Your task to perform on an android device: change the clock display to digital Image 0: 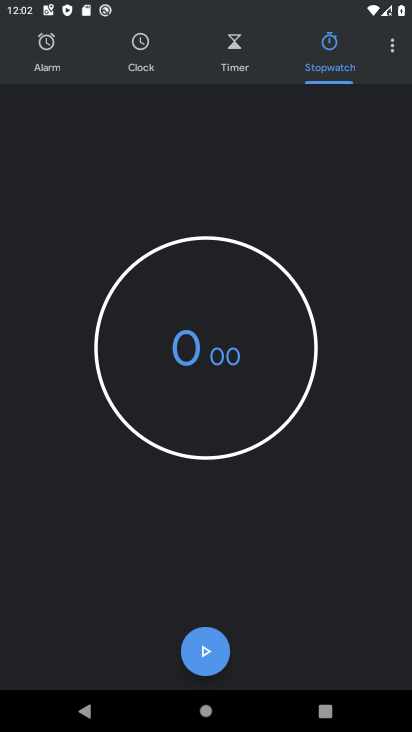
Step 0: press home button
Your task to perform on an android device: change the clock display to digital Image 1: 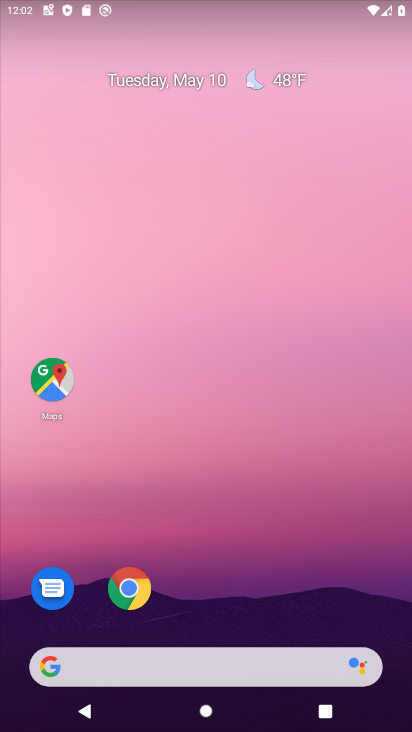
Step 1: drag from (258, 48) to (408, 0)
Your task to perform on an android device: change the clock display to digital Image 2: 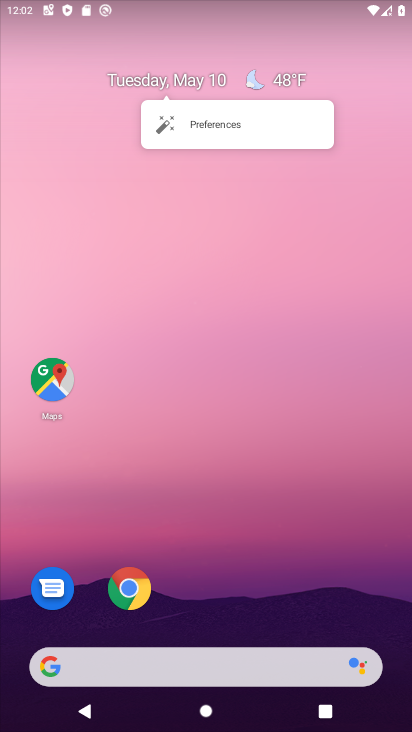
Step 2: click (278, 486)
Your task to perform on an android device: change the clock display to digital Image 3: 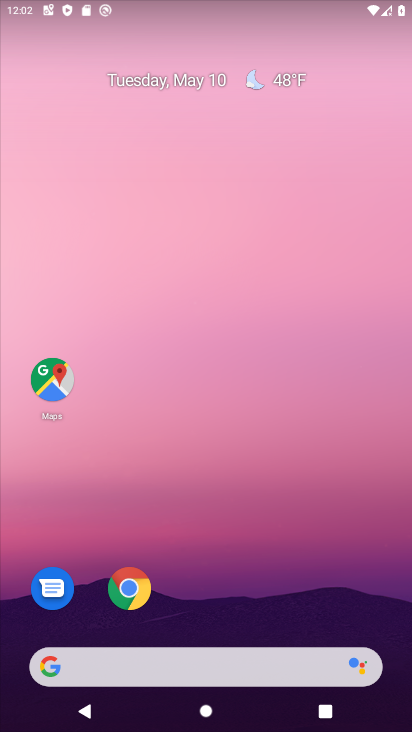
Step 3: drag from (278, 486) to (334, 45)
Your task to perform on an android device: change the clock display to digital Image 4: 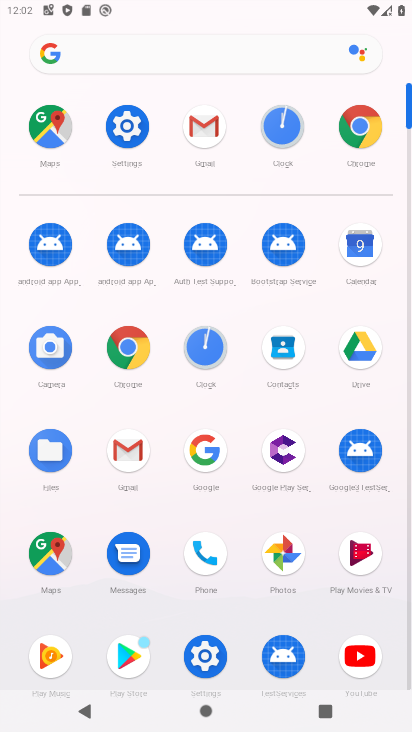
Step 4: click (207, 337)
Your task to perform on an android device: change the clock display to digital Image 5: 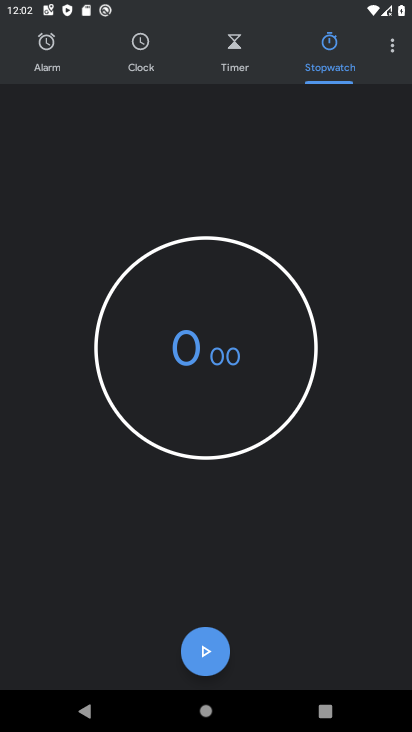
Step 5: click (379, 45)
Your task to perform on an android device: change the clock display to digital Image 6: 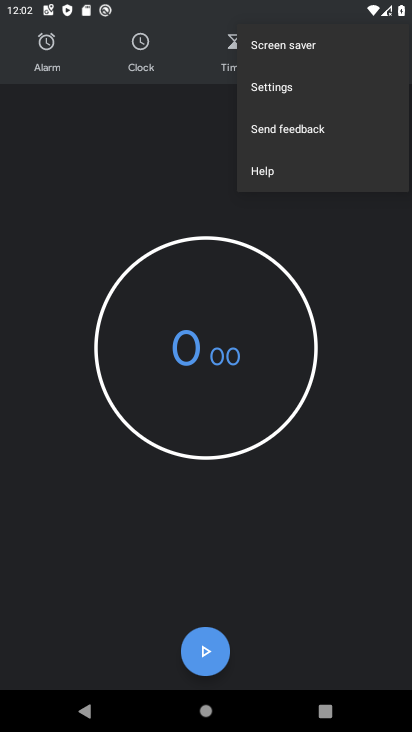
Step 6: click (337, 82)
Your task to perform on an android device: change the clock display to digital Image 7: 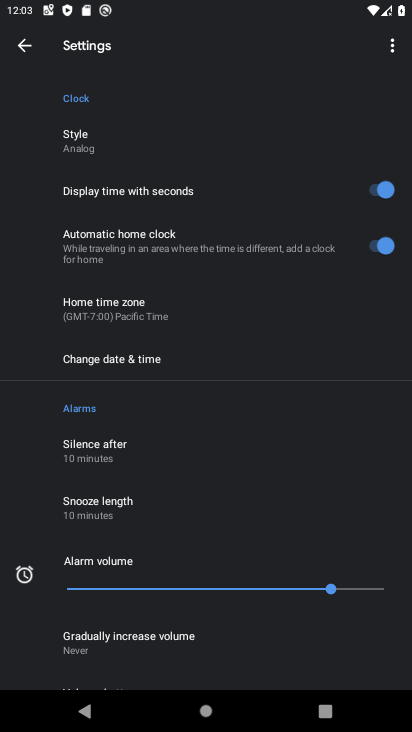
Step 7: click (89, 135)
Your task to perform on an android device: change the clock display to digital Image 8: 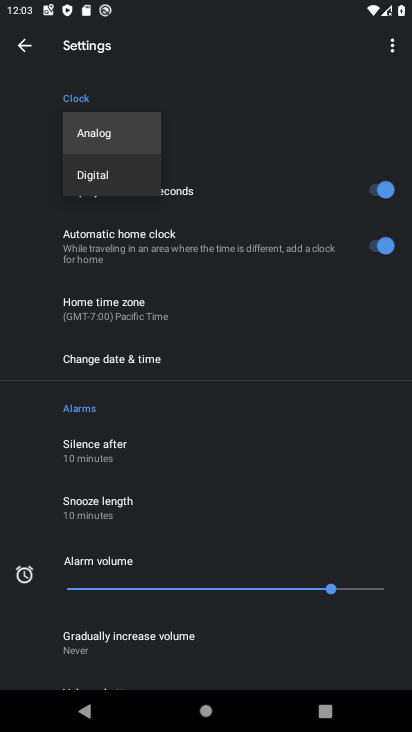
Step 8: click (100, 170)
Your task to perform on an android device: change the clock display to digital Image 9: 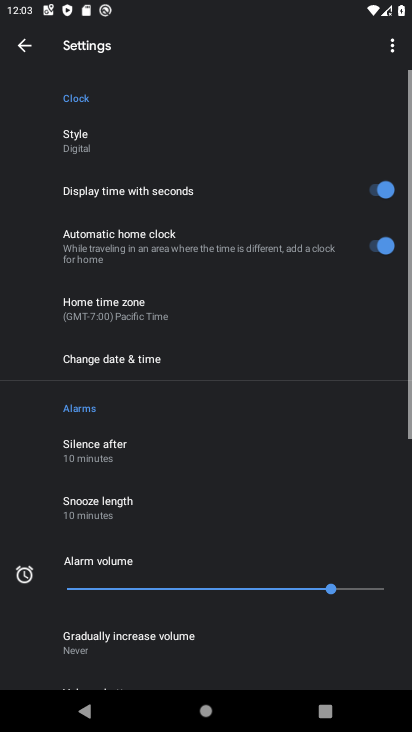
Step 9: click (100, 170)
Your task to perform on an android device: change the clock display to digital Image 10: 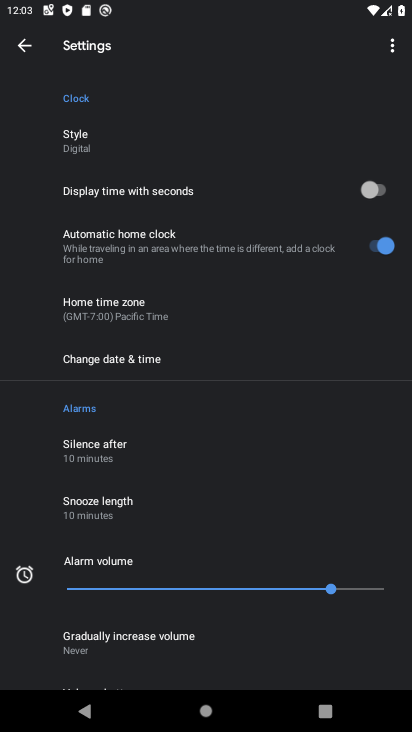
Step 10: task complete